Your task to perform on an android device: Open Google Maps Image 0: 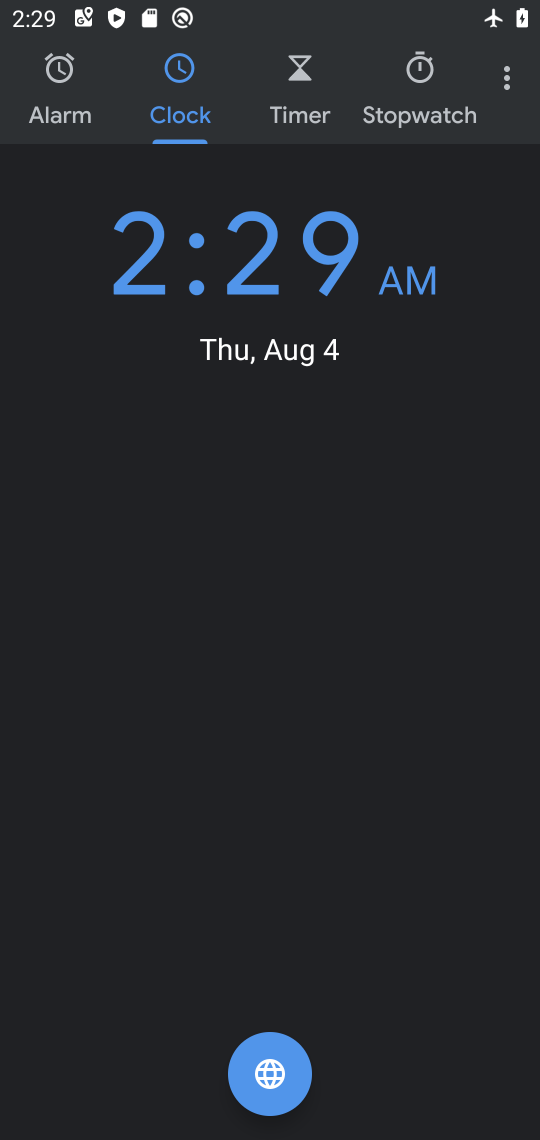
Step 0: press home button
Your task to perform on an android device: Open Google Maps Image 1: 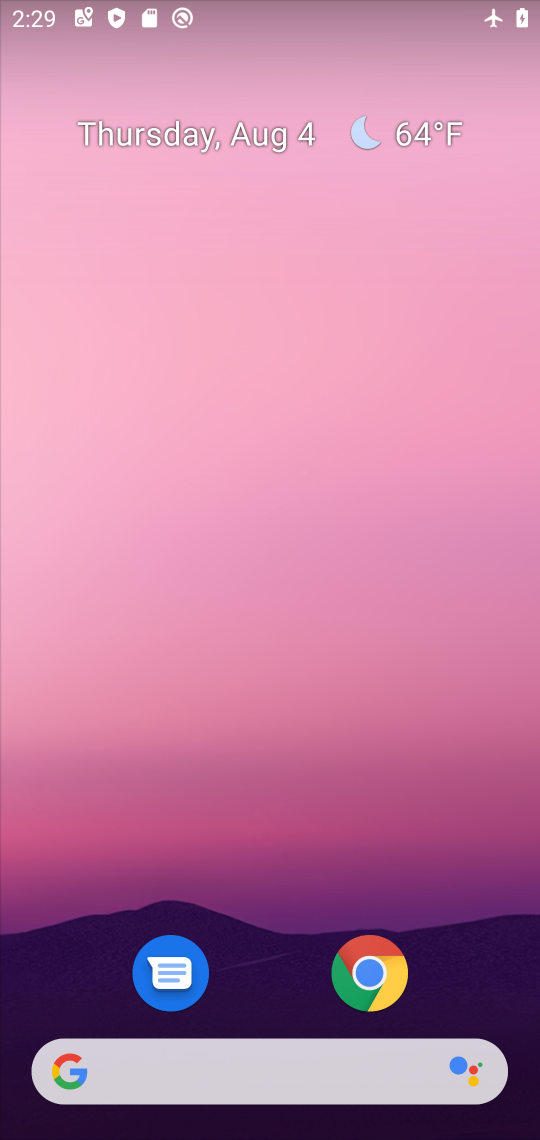
Step 1: drag from (297, 1035) to (534, 928)
Your task to perform on an android device: Open Google Maps Image 2: 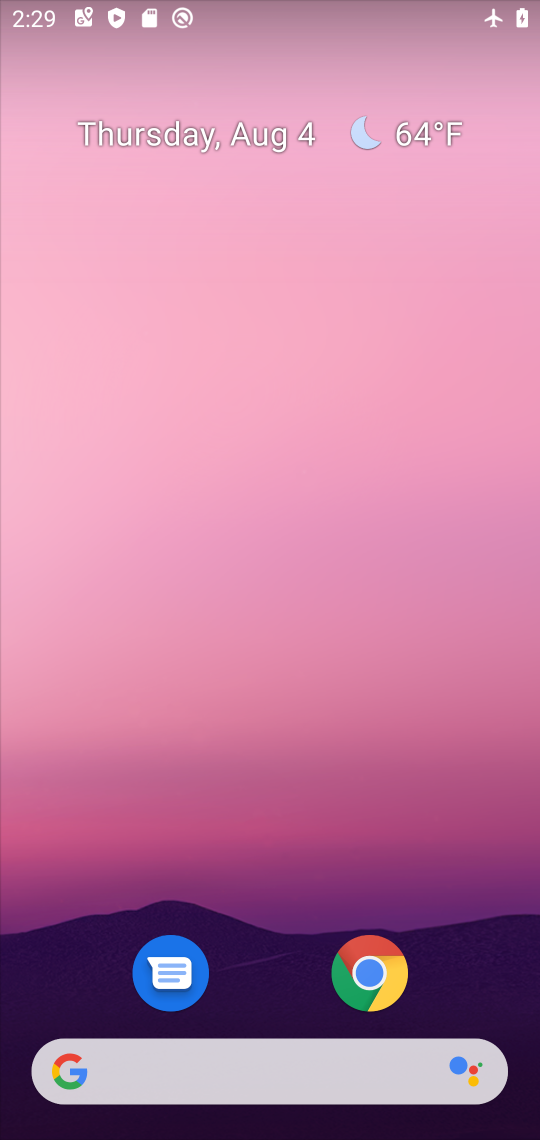
Step 2: drag from (246, 1031) to (272, 149)
Your task to perform on an android device: Open Google Maps Image 3: 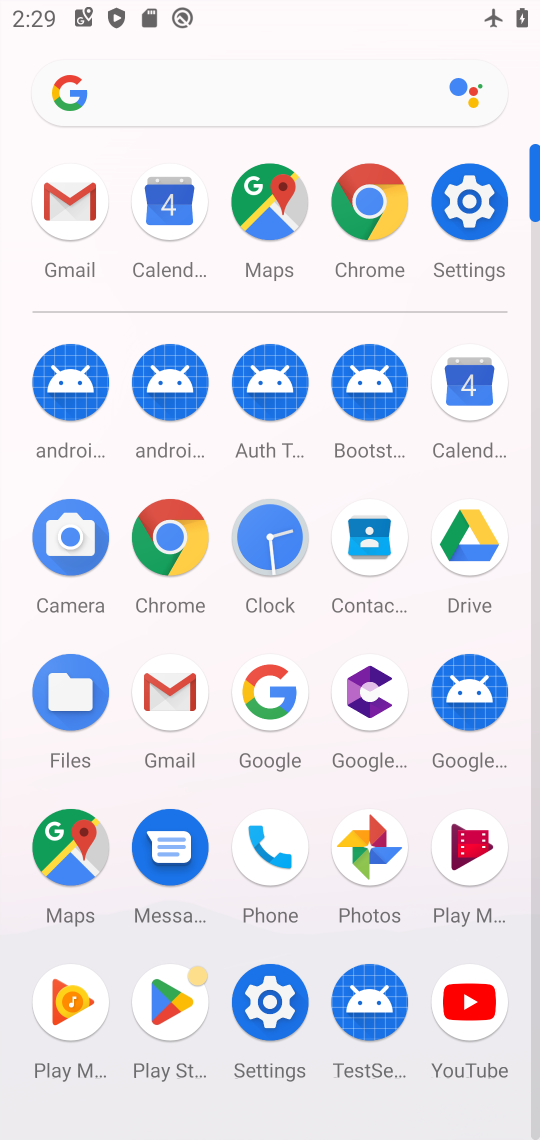
Step 3: click (68, 859)
Your task to perform on an android device: Open Google Maps Image 4: 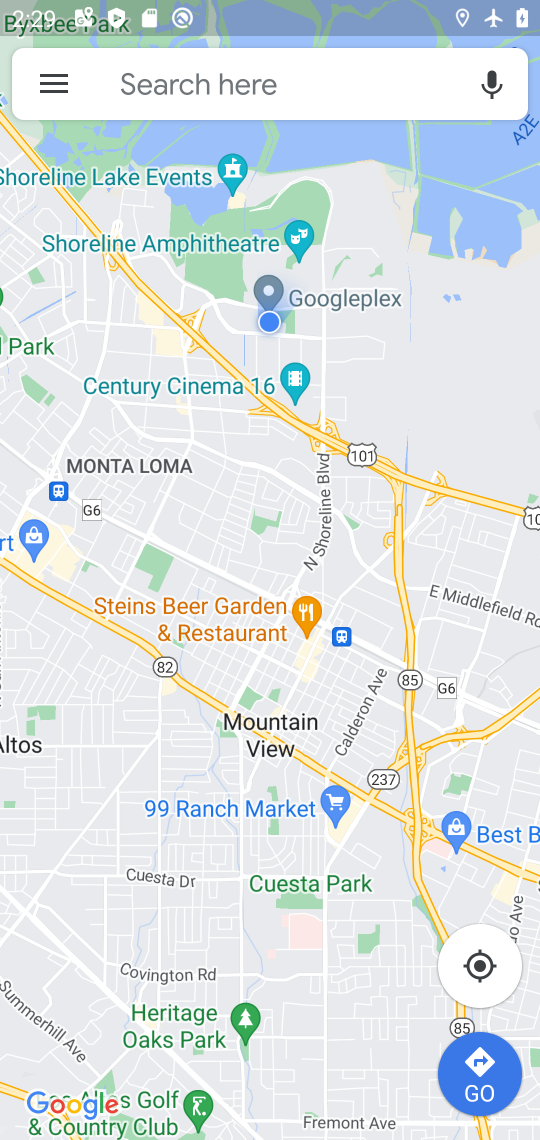
Step 4: task complete